Your task to perform on an android device: Go to accessibility settings Image 0: 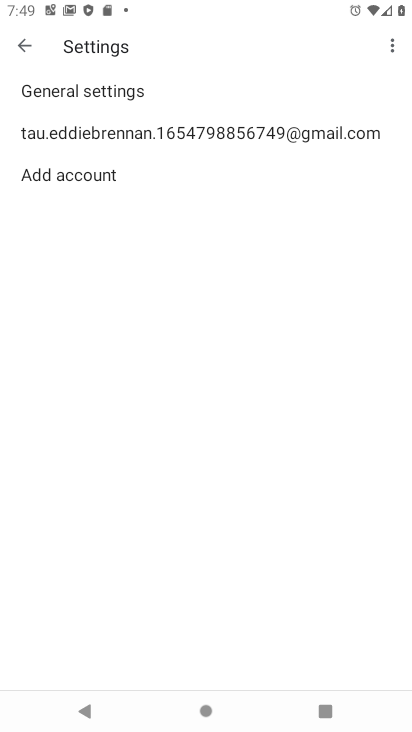
Step 0: press home button
Your task to perform on an android device: Go to accessibility settings Image 1: 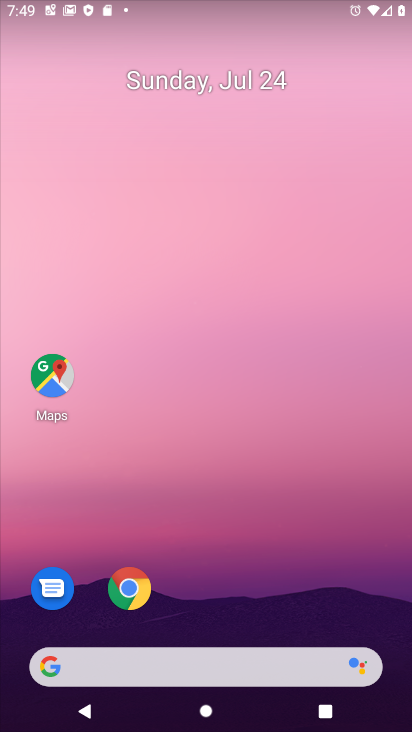
Step 1: drag from (192, 557) to (17, 256)
Your task to perform on an android device: Go to accessibility settings Image 2: 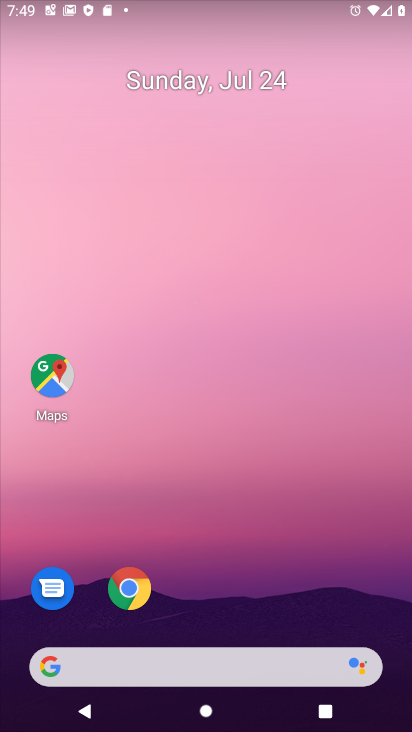
Step 2: drag from (235, 598) to (295, 1)
Your task to perform on an android device: Go to accessibility settings Image 3: 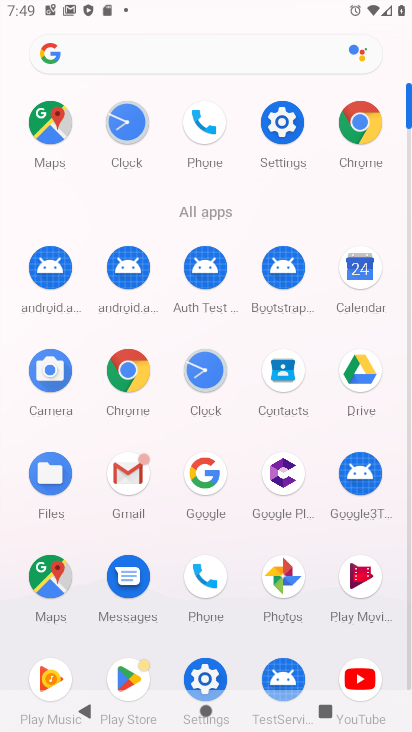
Step 3: click (282, 118)
Your task to perform on an android device: Go to accessibility settings Image 4: 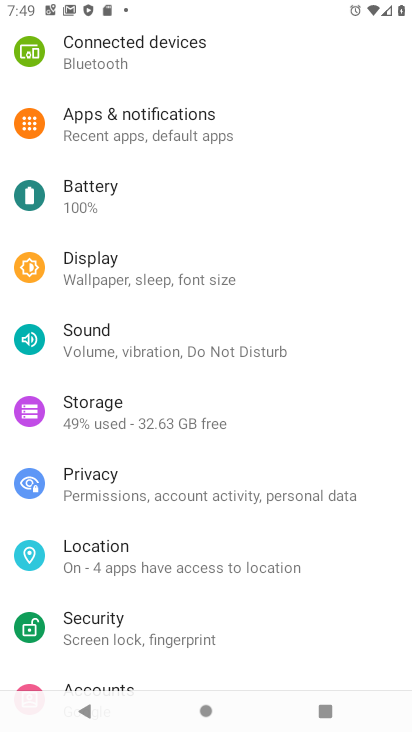
Step 4: drag from (127, 580) to (103, 51)
Your task to perform on an android device: Go to accessibility settings Image 5: 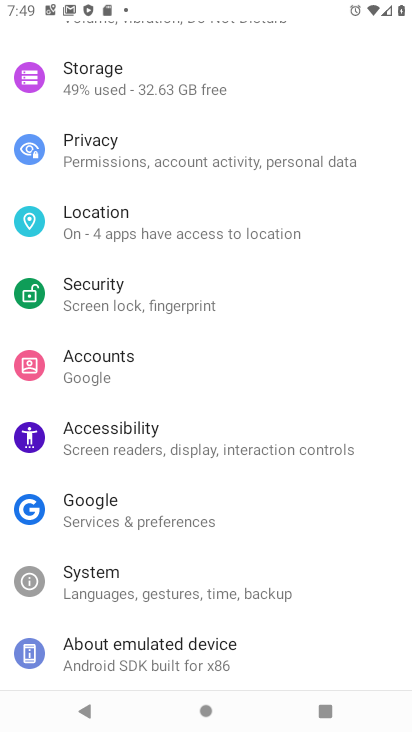
Step 5: click (125, 446)
Your task to perform on an android device: Go to accessibility settings Image 6: 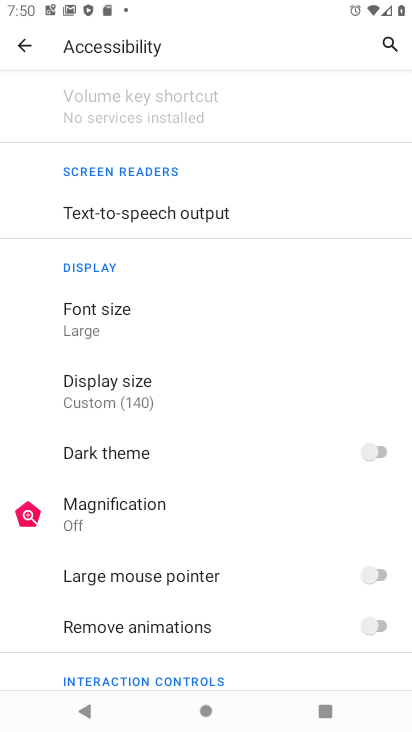
Step 6: task complete